Your task to perform on an android device: turn on data saver in the chrome app Image 0: 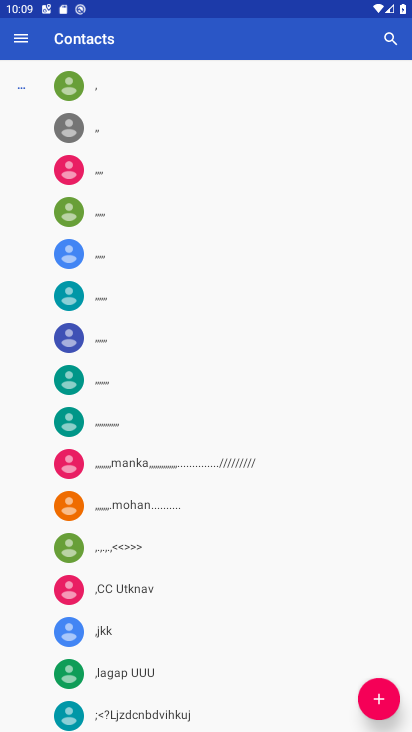
Step 0: press back button
Your task to perform on an android device: turn on data saver in the chrome app Image 1: 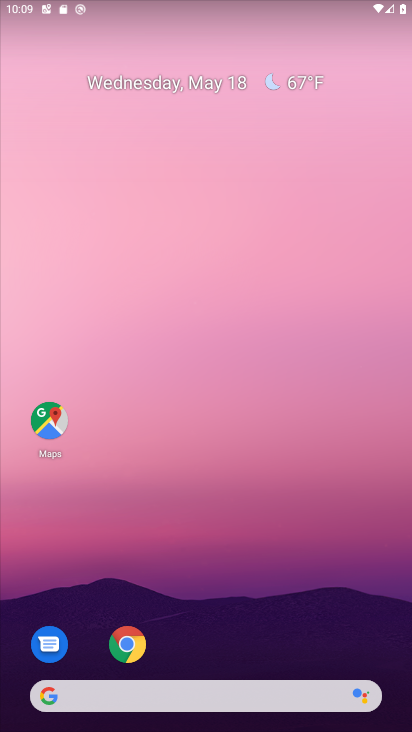
Step 1: click (127, 643)
Your task to perform on an android device: turn on data saver in the chrome app Image 2: 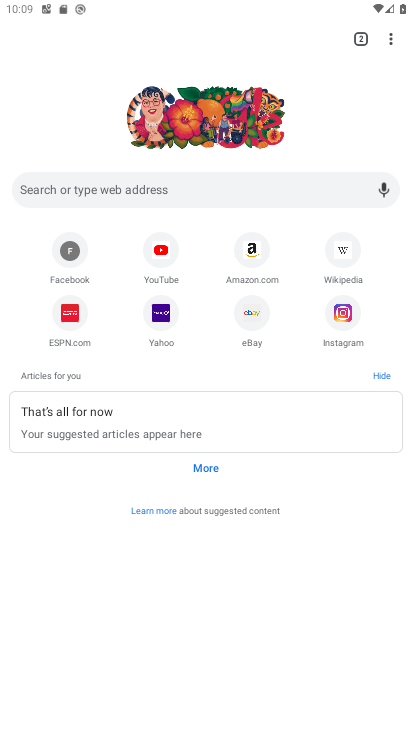
Step 2: click (389, 38)
Your task to perform on an android device: turn on data saver in the chrome app Image 3: 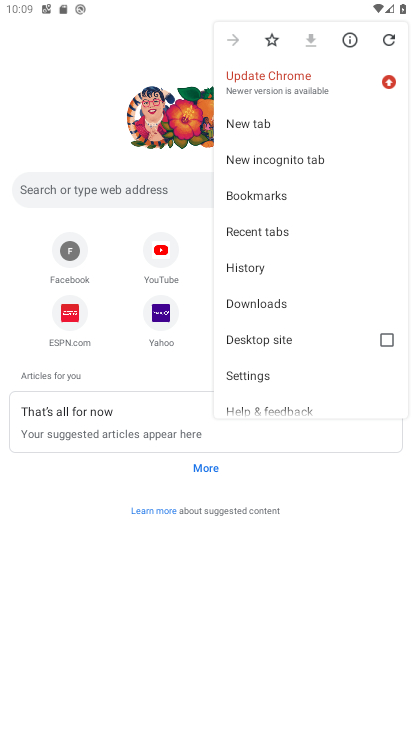
Step 3: click (253, 374)
Your task to perform on an android device: turn on data saver in the chrome app Image 4: 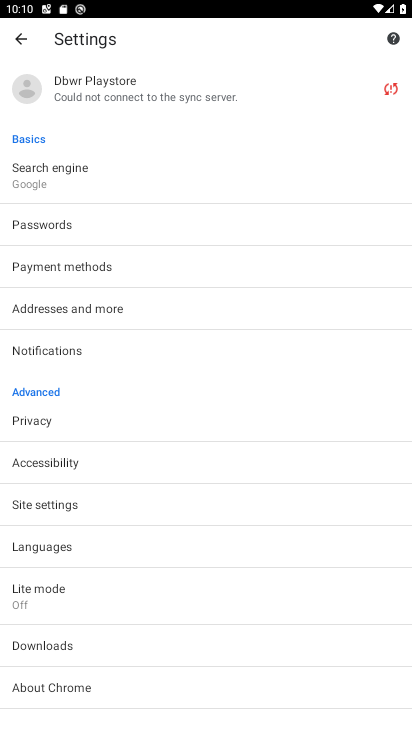
Step 4: click (53, 586)
Your task to perform on an android device: turn on data saver in the chrome app Image 5: 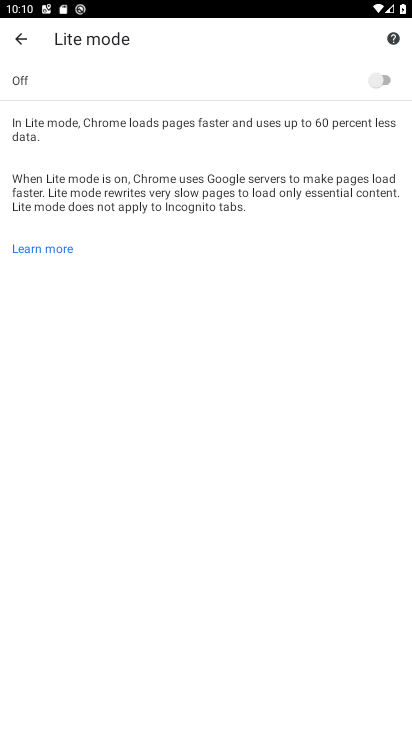
Step 5: click (379, 83)
Your task to perform on an android device: turn on data saver in the chrome app Image 6: 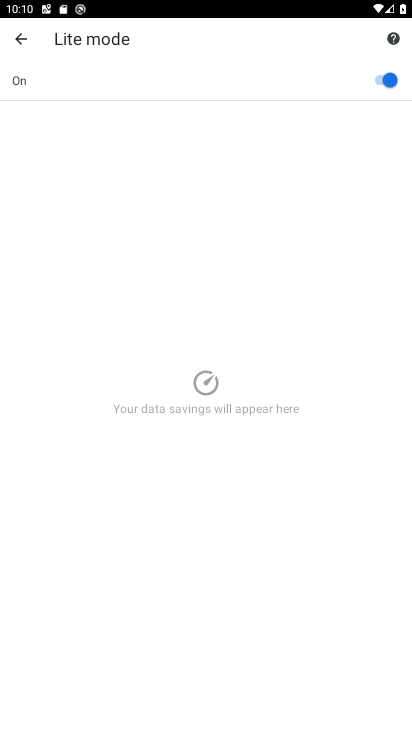
Step 6: task complete